Your task to perform on an android device: Open CNN.com Image 0: 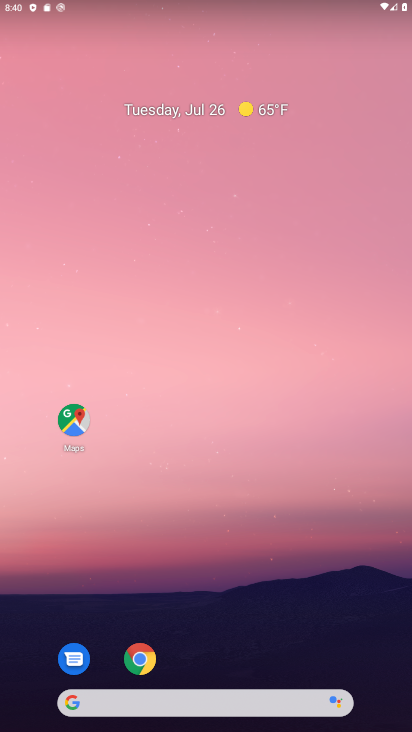
Step 0: click (139, 663)
Your task to perform on an android device: Open CNN.com Image 1: 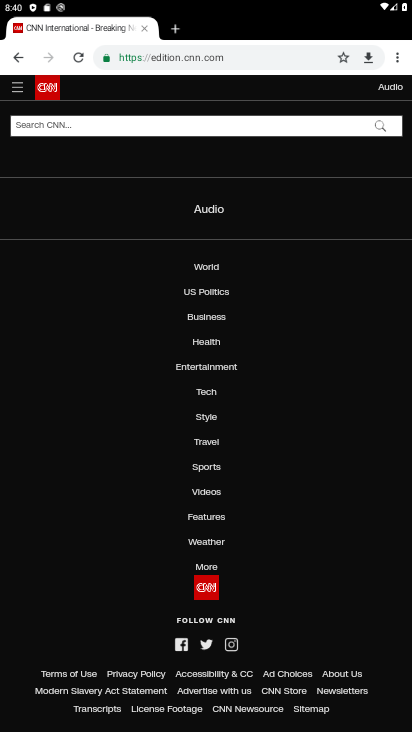
Step 1: task complete